Your task to perform on an android device: open sync settings in chrome Image 0: 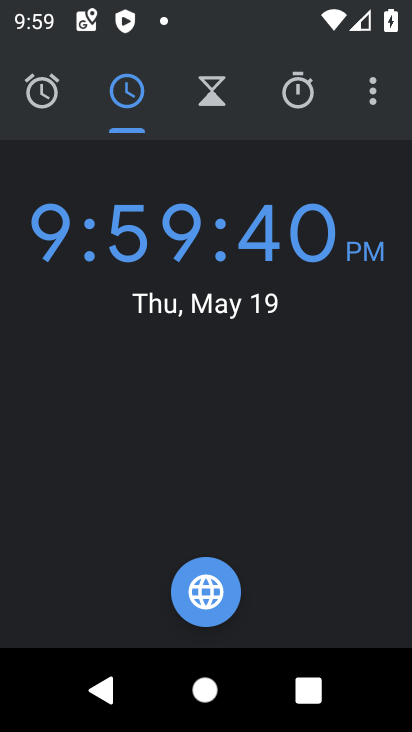
Step 0: press home button
Your task to perform on an android device: open sync settings in chrome Image 1: 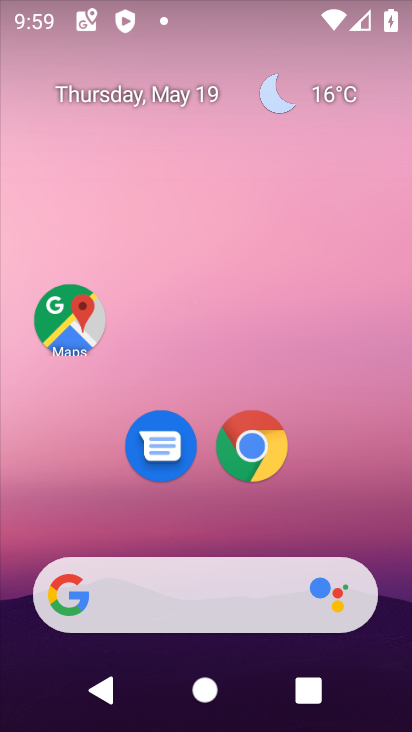
Step 1: click (254, 462)
Your task to perform on an android device: open sync settings in chrome Image 2: 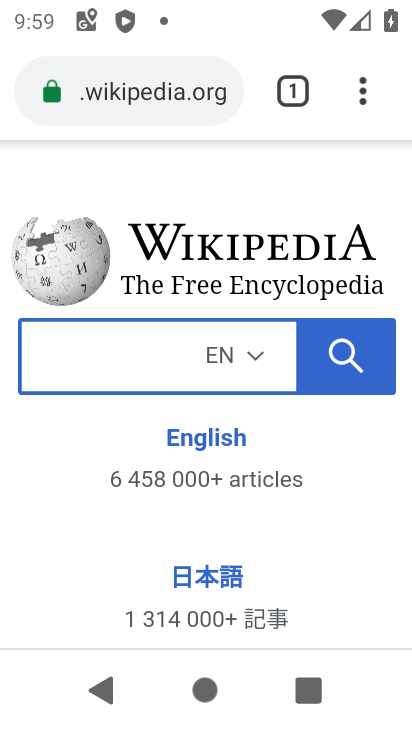
Step 2: click (363, 101)
Your task to perform on an android device: open sync settings in chrome Image 3: 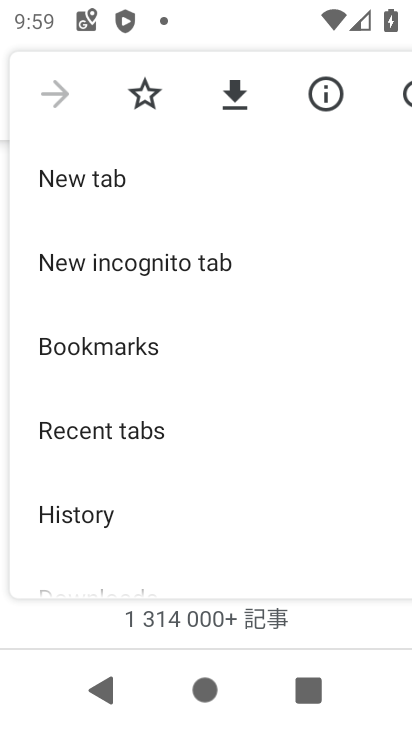
Step 3: drag from (122, 420) to (204, 47)
Your task to perform on an android device: open sync settings in chrome Image 4: 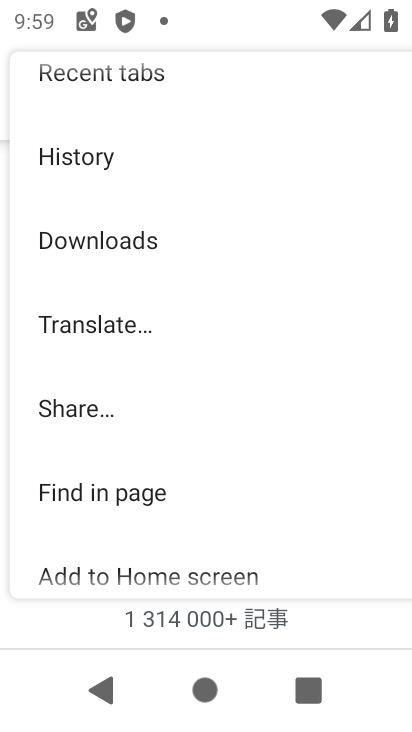
Step 4: drag from (114, 543) to (210, 41)
Your task to perform on an android device: open sync settings in chrome Image 5: 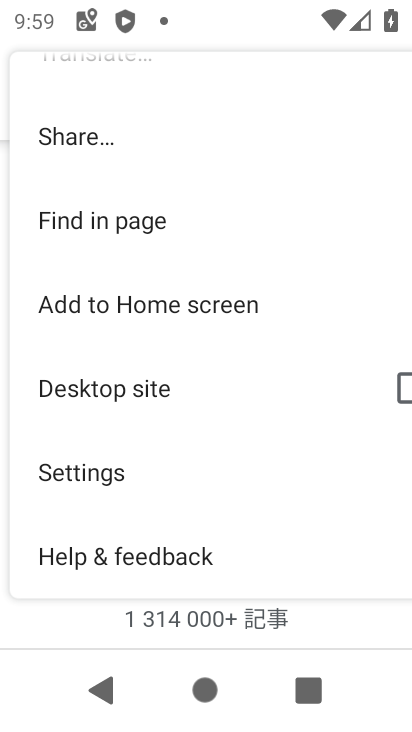
Step 5: click (104, 477)
Your task to perform on an android device: open sync settings in chrome Image 6: 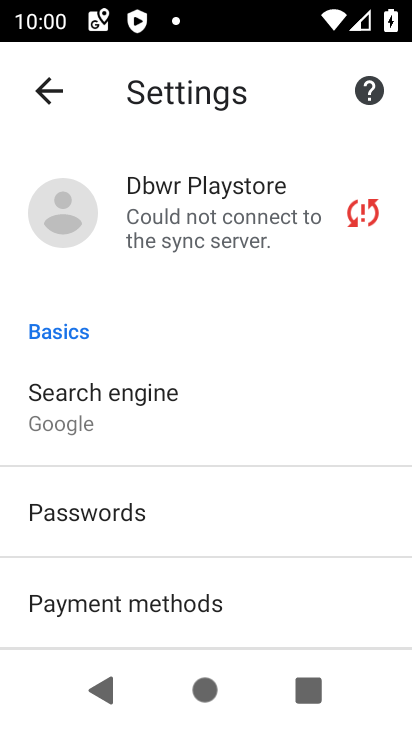
Step 6: click (203, 228)
Your task to perform on an android device: open sync settings in chrome Image 7: 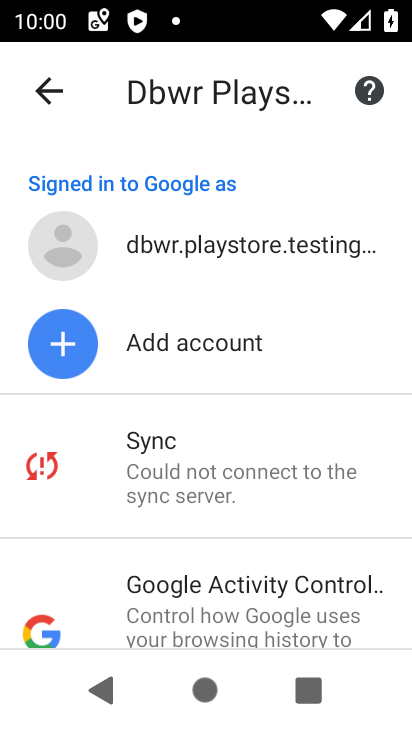
Step 7: click (177, 453)
Your task to perform on an android device: open sync settings in chrome Image 8: 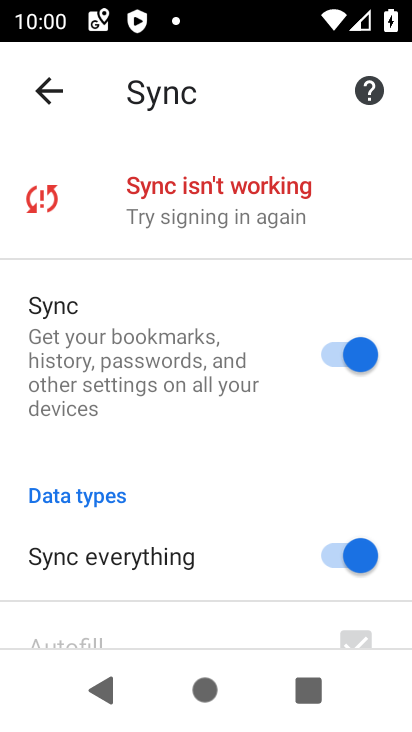
Step 8: click (241, 194)
Your task to perform on an android device: open sync settings in chrome Image 9: 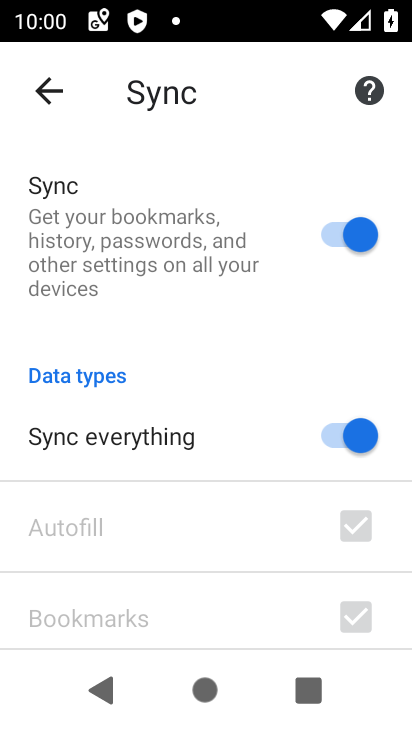
Step 9: task complete